Your task to perform on an android device: Open Reddit.com Image 0: 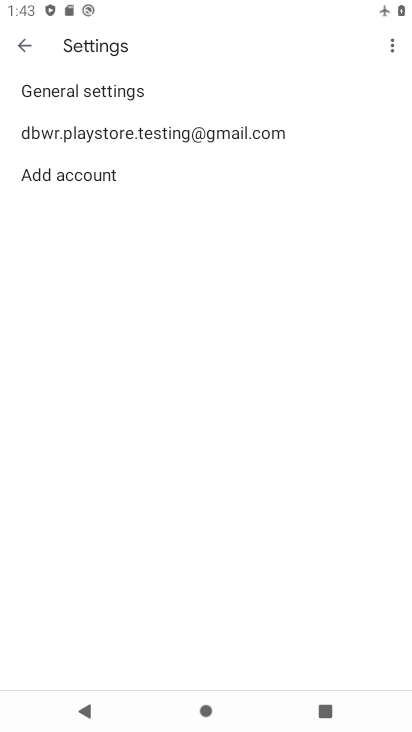
Step 0: press home button
Your task to perform on an android device: Open Reddit.com Image 1: 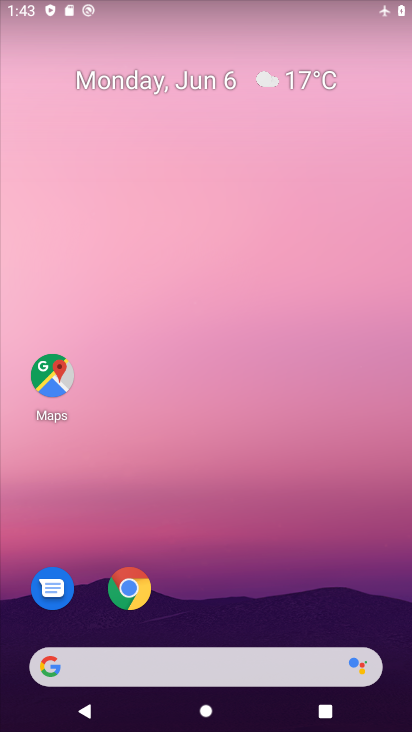
Step 1: click (141, 602)
Your task to perform on an android device: Open Reddit.com Image 2: 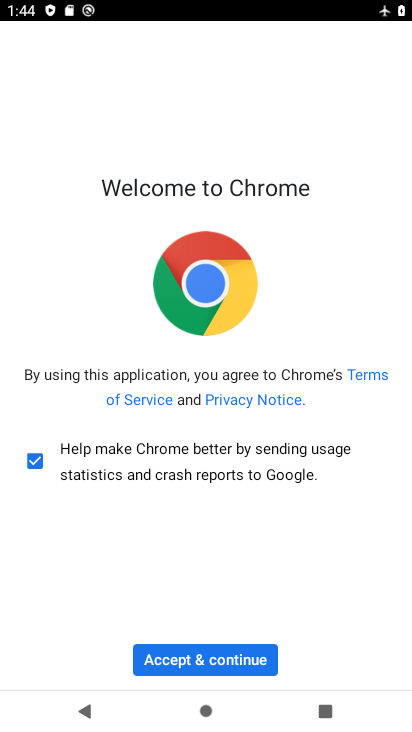
Step 2: click (233, 654)
Your task to perform on an android device: Open Reddit.com Image 3: 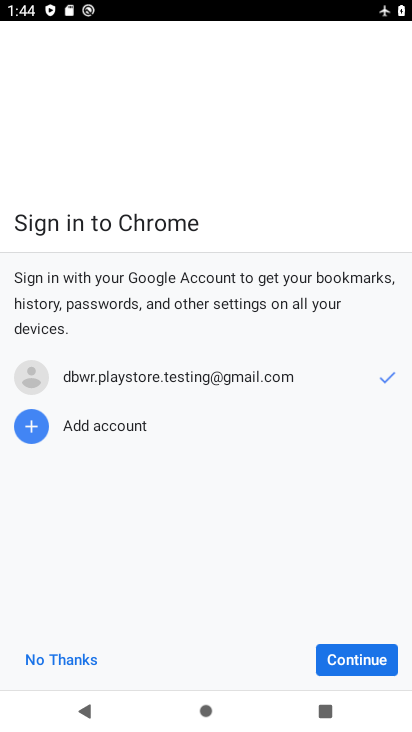
Step 3: click (342, 658)
Your task to perform on an android device: Open Reddit.com Image 4: 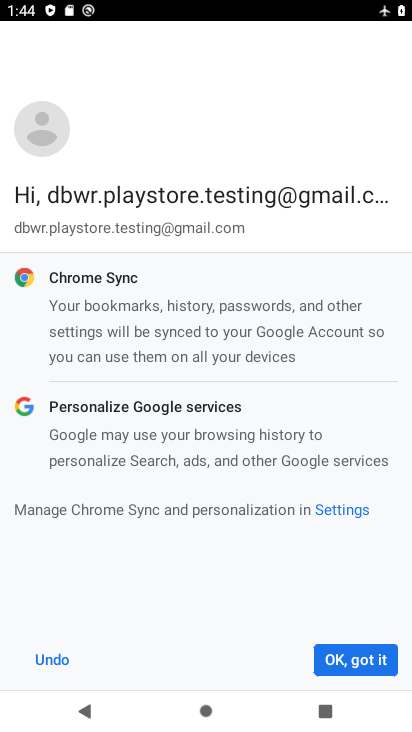
Step 4: click (342, 658)
Your task to perform on an android device: Open Reddit.com Image 5: 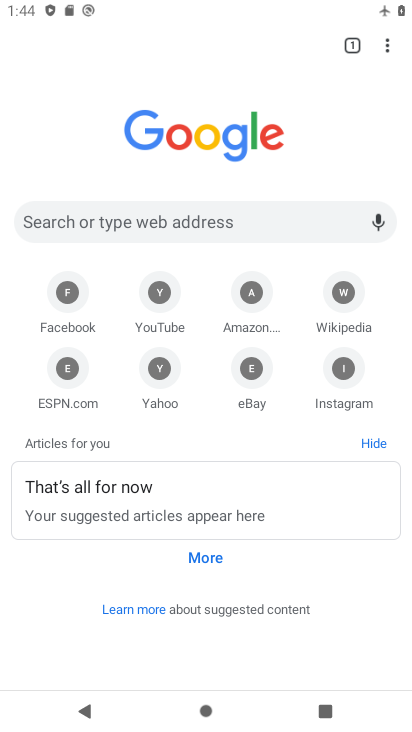
Step 5: click (199, 208)
Your task to perform on an android device: Open Reddit.com Image 6: 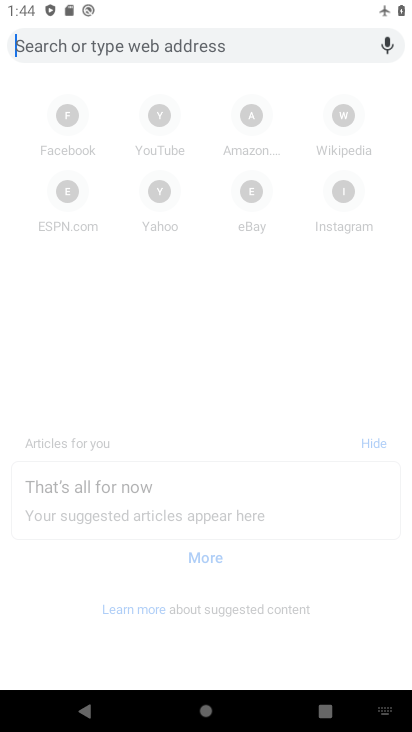
Step 6: type "reddit.com"
Your task to perform on an android device: Open Reddit.com Image 7: 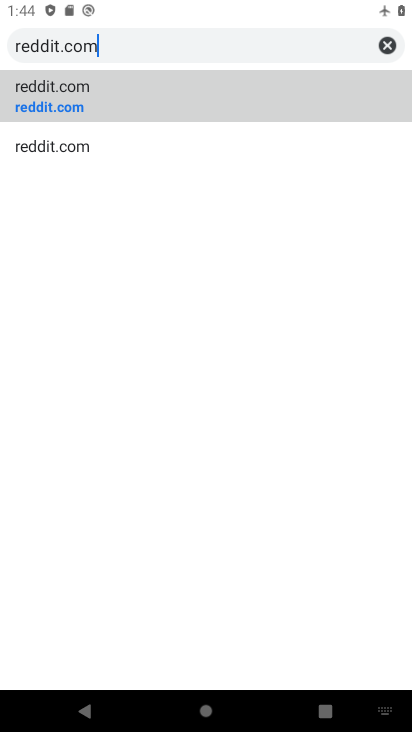
Step 7: click (278, 82)
Your task to perform on an android device: Open Reddit.com Image 8: 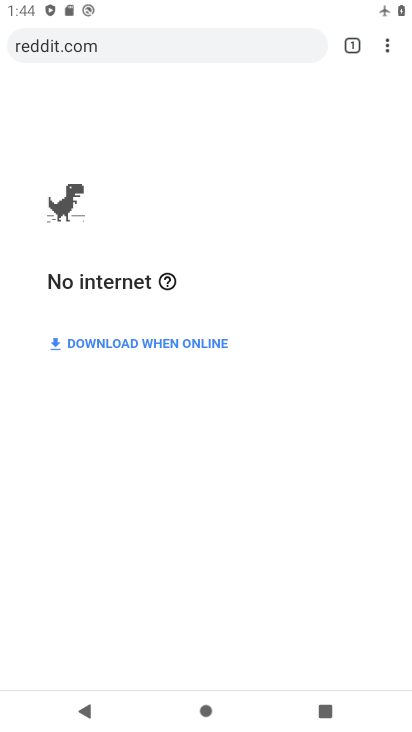
Step 8: task complete